Your task to perform on an android device: Clear the cart on target.com. Image 0: 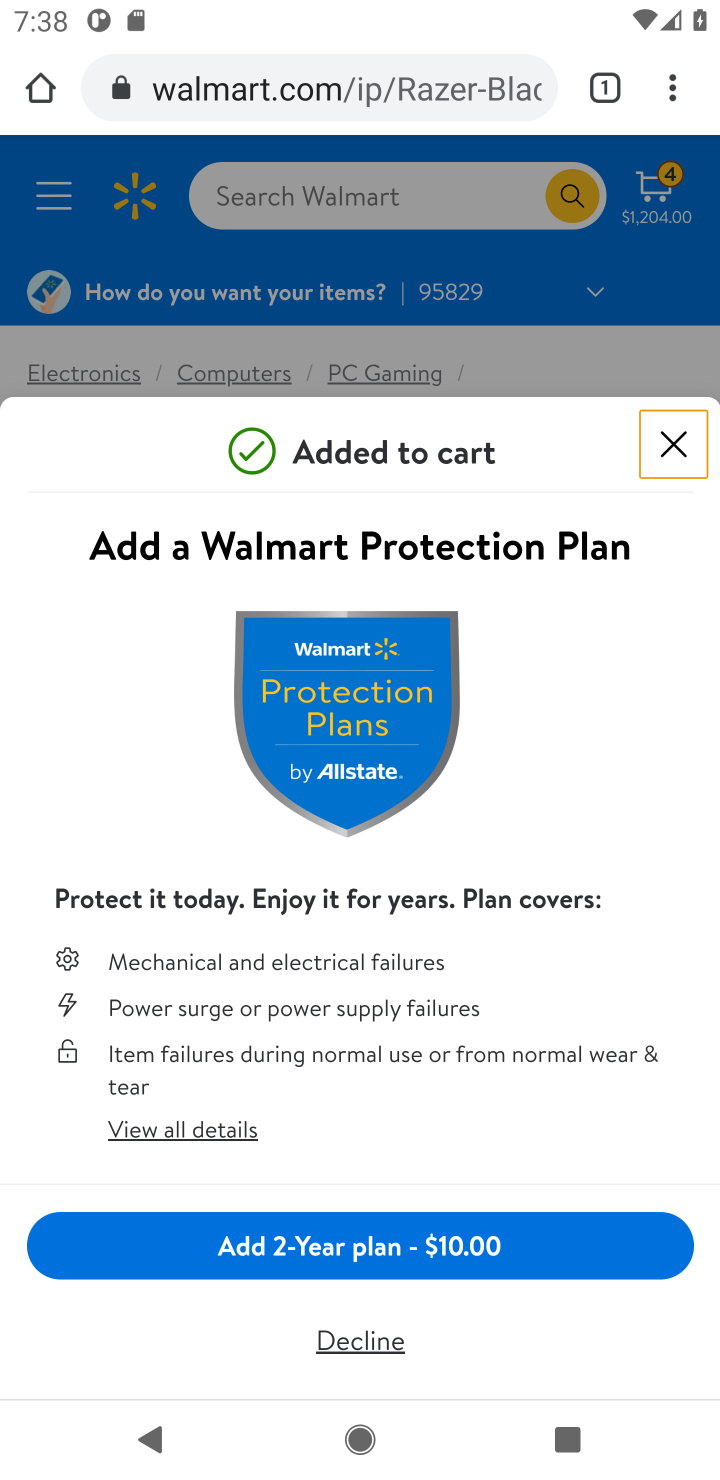
Step 0: task complete